Your task to perform on an android device: Play the last video I watched on Youtube Image 0: 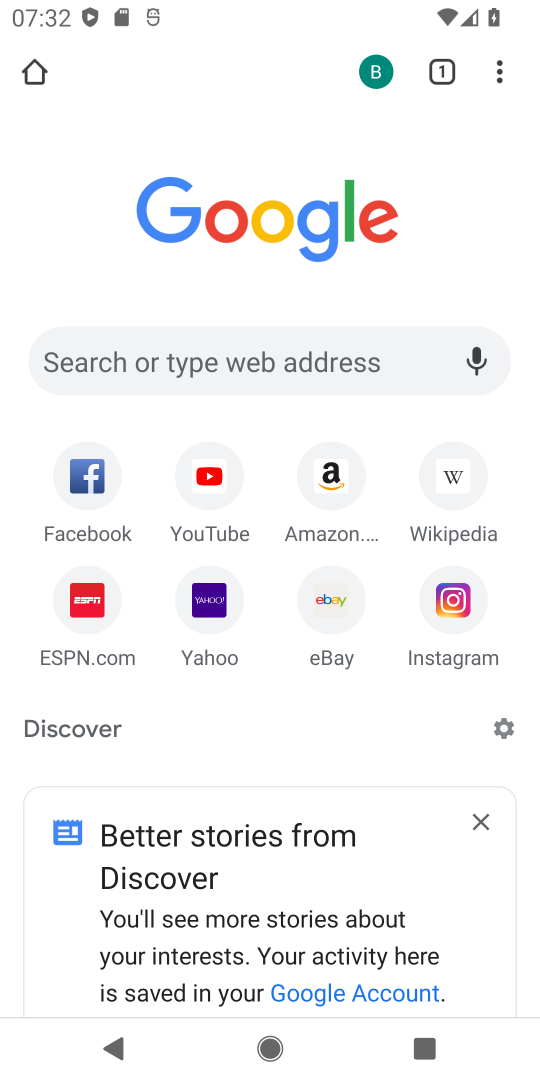
Step 0: press home button
Your task to perform on an android device: Play the last video I watched on Youtube Image 1: 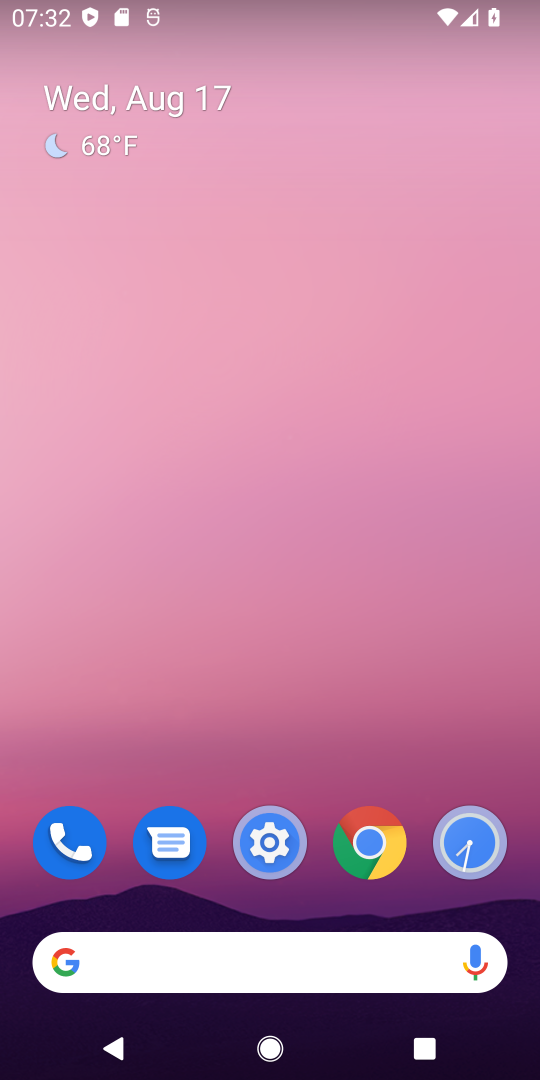
Step 1: drag from (300, 746) to (370, 4)
Your task to perform on an android device: Play the last video I watched on Youtube Image 2: 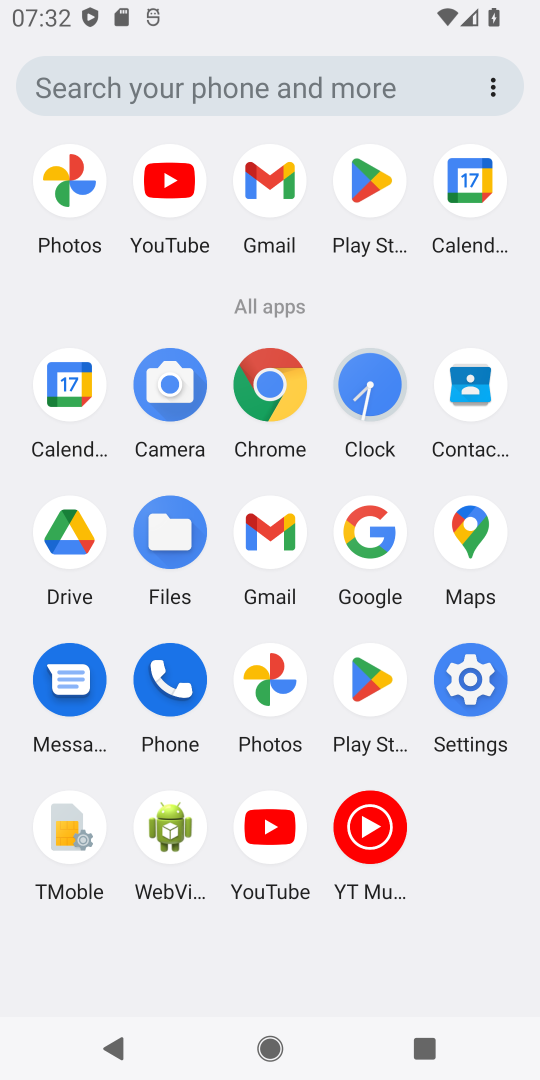
Step 2: click (269, 824)
Your task to perform on an android device: Play the last video I watched on Youtube Image 3: 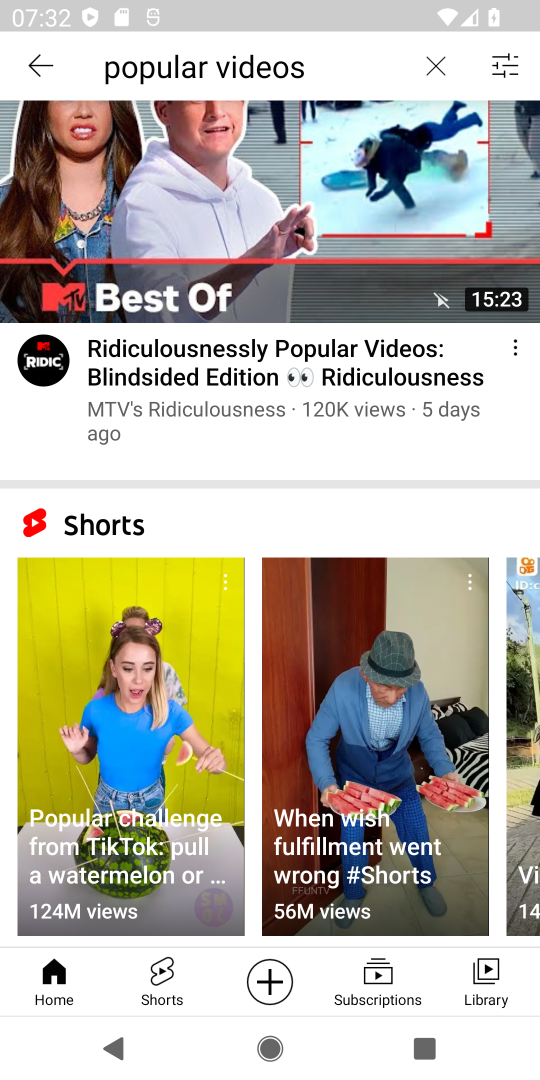
Step 3: click (477, 962)
Your task to perform on an android device: Play the last video I watched on Youtube Image 4: 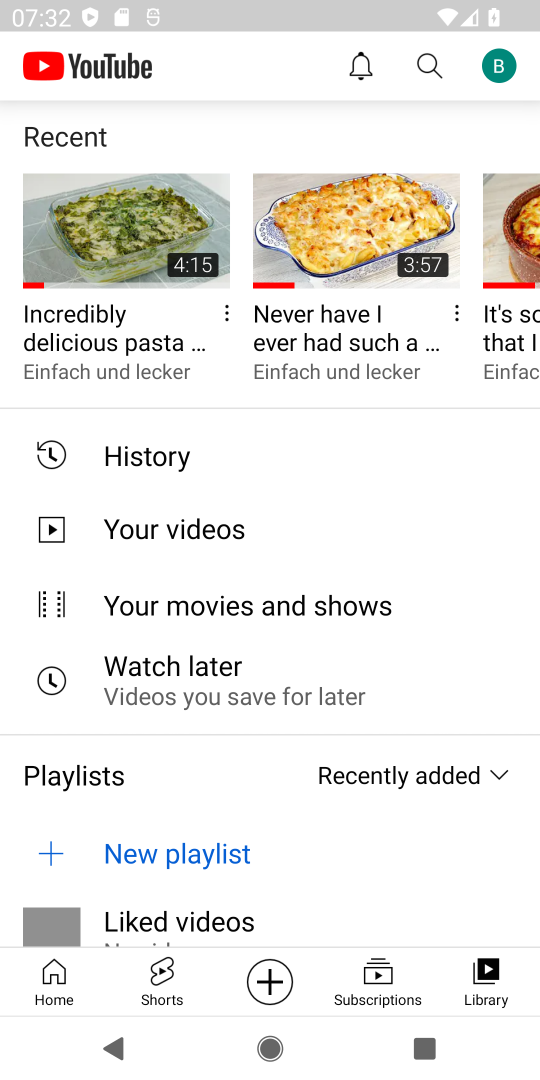
Step 4: click (125, 222)
Your task to perform on an android device: Play the last video I watched on Youtube Image 5: 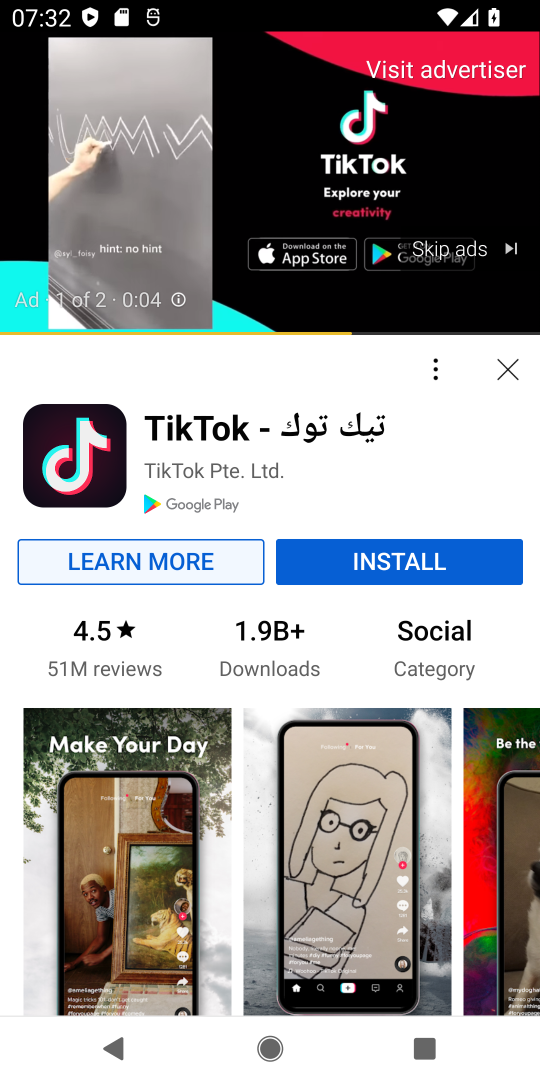
Step 5: click (461, 249)
Your task to perform on an android device: Play the last video I watched on Youtube Image 6: 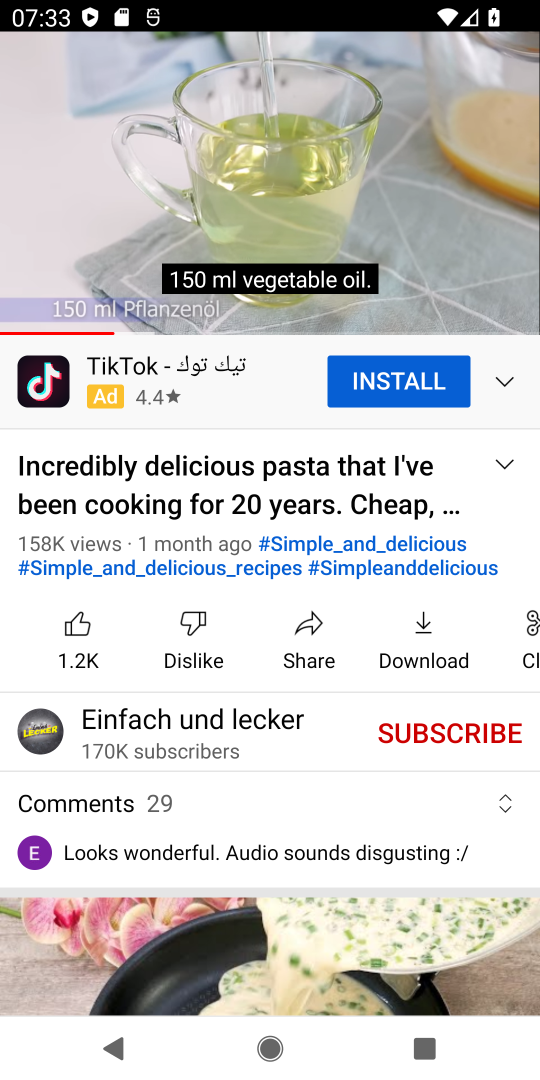
Step 6: task complete